Your task to perform on an android device: turn vacation reply on in the gmail app Image 0: 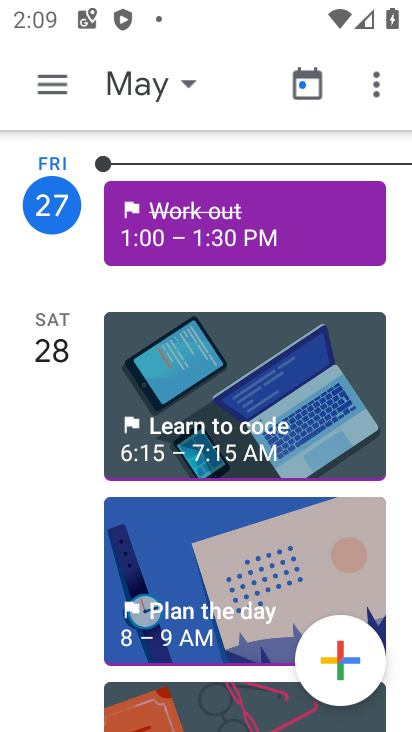
Step 0: press home button
Your task to perform on an android device: turn vacation reply on in the gmail app Image 1: 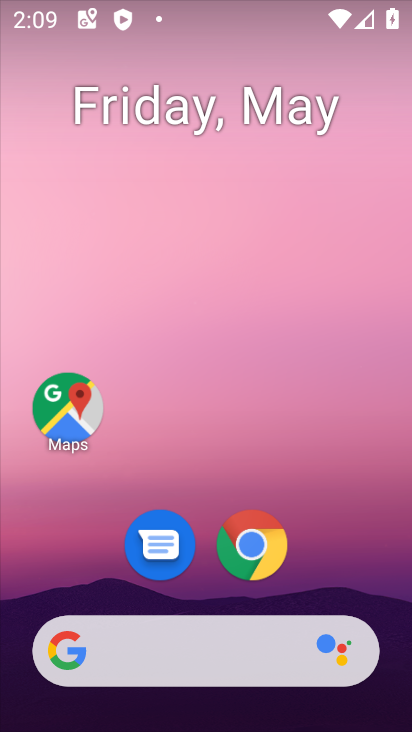
Step 1: drag from (67, 615) to (144, 235)
Your task to perform on an android device: turn vacation reply on in the gmail app Image 2: 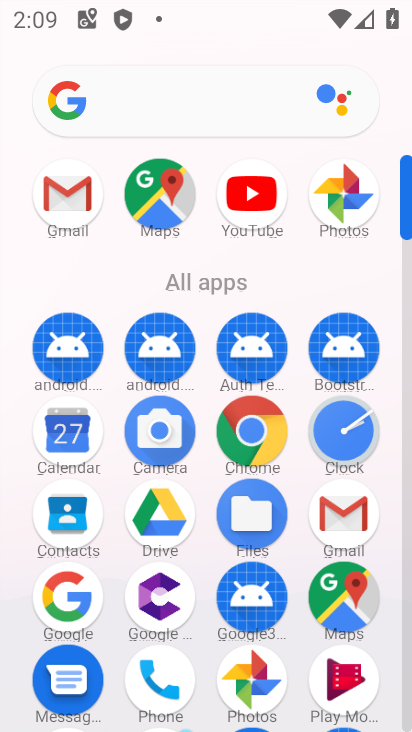
Step 2: click (362, 514)
Your task to perform on an android device: turn vacation reply on in the gmail app Image 3: 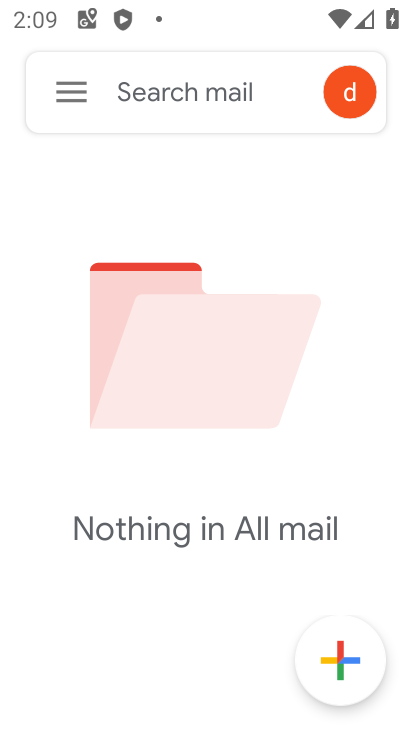
Step 3: click (87, 92)
Your task to perform on an android device: turn vacation reply on in the gmail app Image 4: 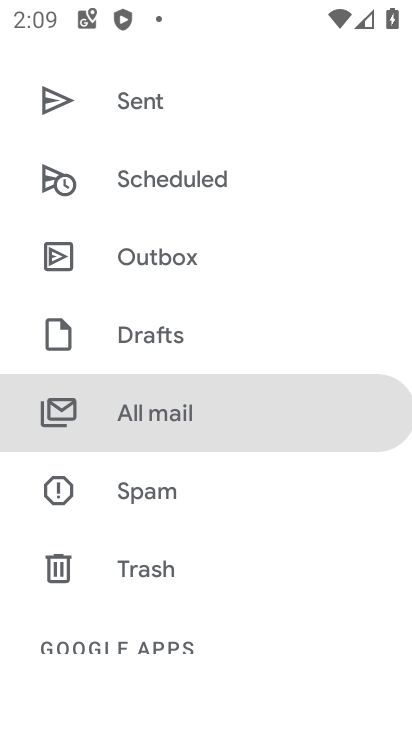
Step 4: drag from (175, 618) to (319, 152)
Your task to perform on an android device: turn vacation reply on in the gmail app Image 5: 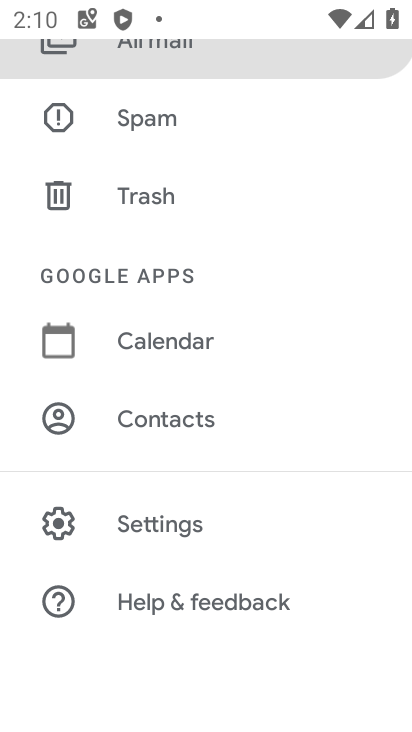
Step 5: click (192, 525)
Your task to perform on an android device: turn vacation reply on in the gmail app Image 6: 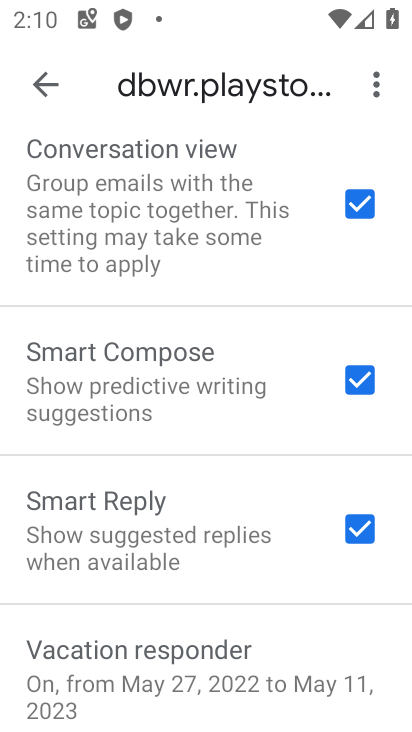
Step 6: drag from (123, 648) to (190, 334)
Your task to perform on an android device: turn vacation reply on in the gmail app Image 7: 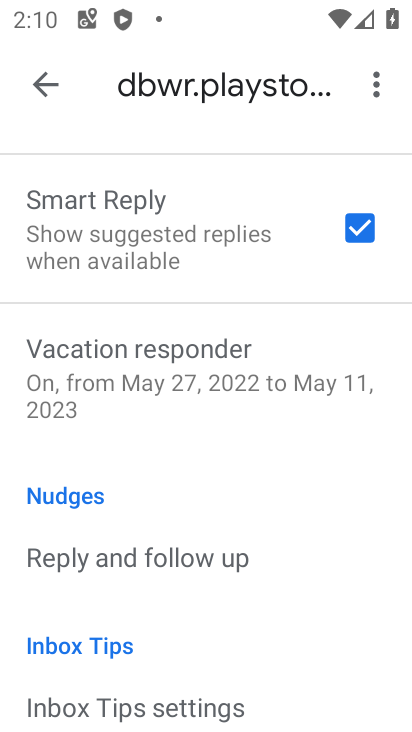
Step 7: click (174, 370)
Your task to perform on an android device: turn vacation reply on in the gmail app Image 8: 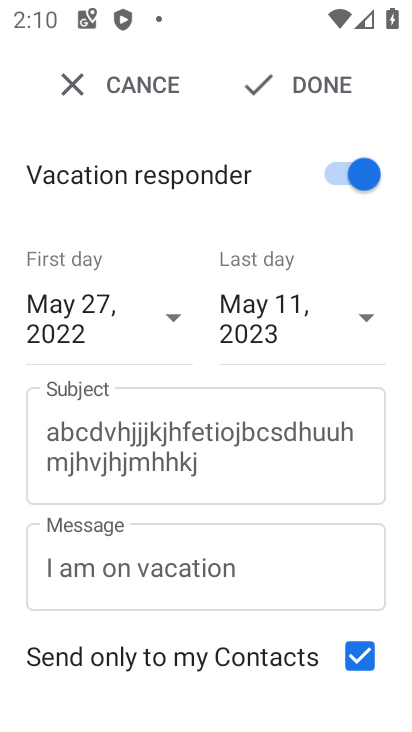
Step 8: task complete